Your task to perform on an android device: change the clock display to analog Image 0: 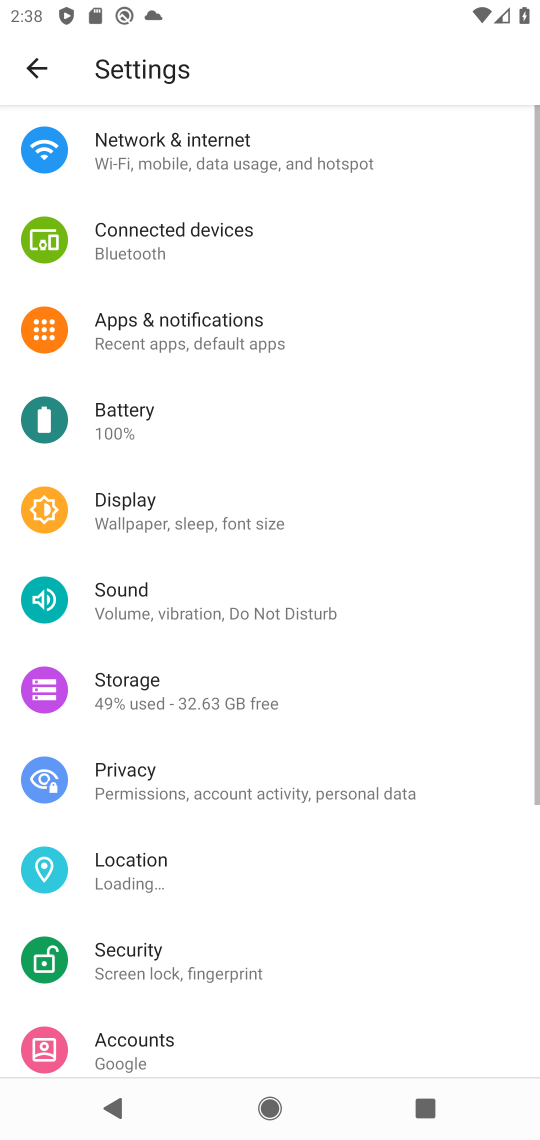
Step 0: press home button
Your task to perform on an android device: change the clock display to analog Image 1: 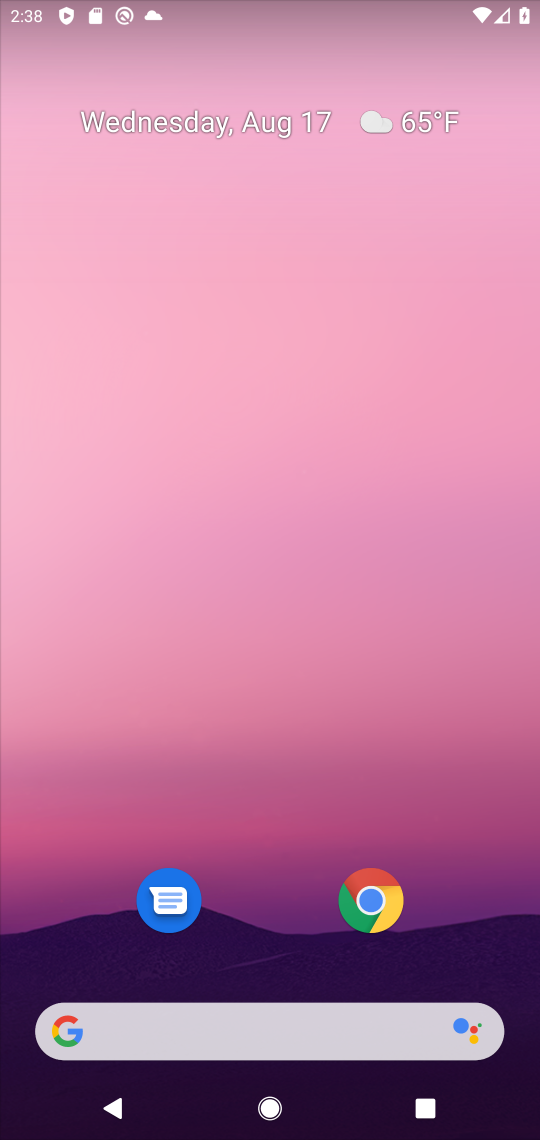
Step 1: drag from (250, 1013) to (379, 86)
Your task to perform on an android device: change the clock display to analog Image 2: 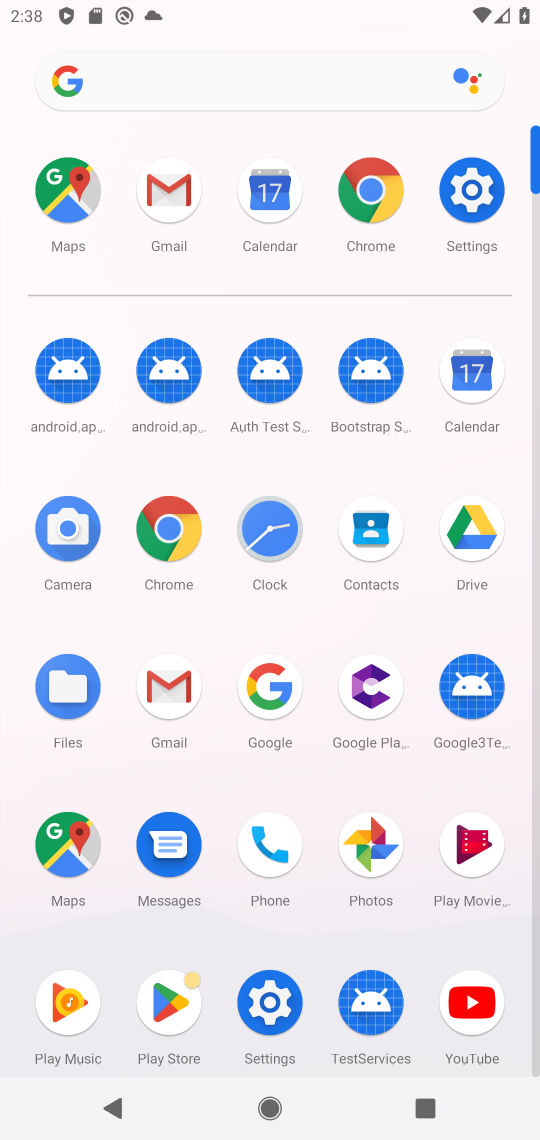
Step 2: click (259, 529)
Your task to perform on an android device: change the clock display to analog Image 3: 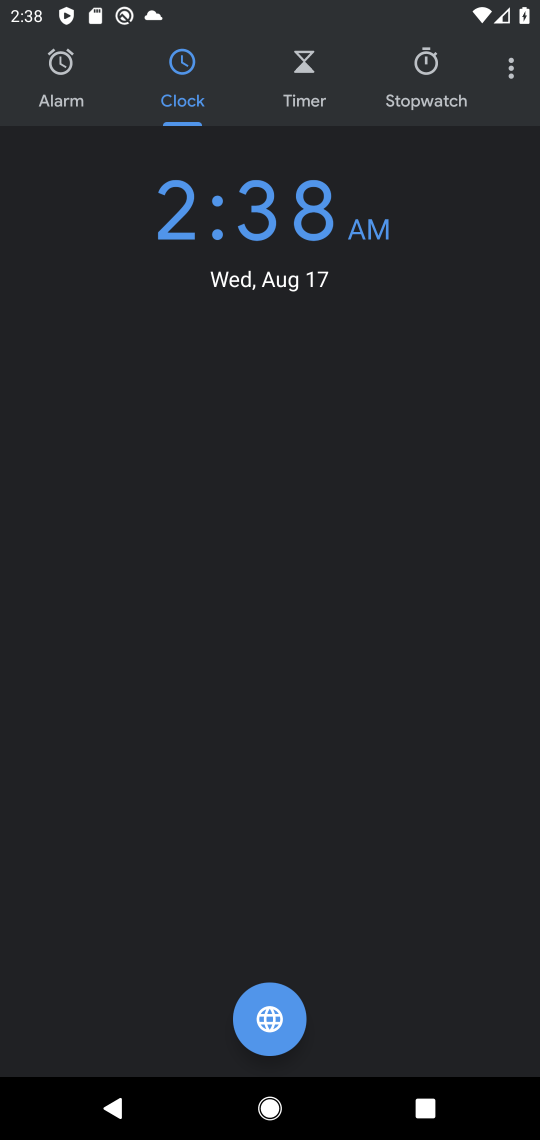
Step 3: click (511, 68)
Your task to perform on an android device: change the clock display to analog Image 4: 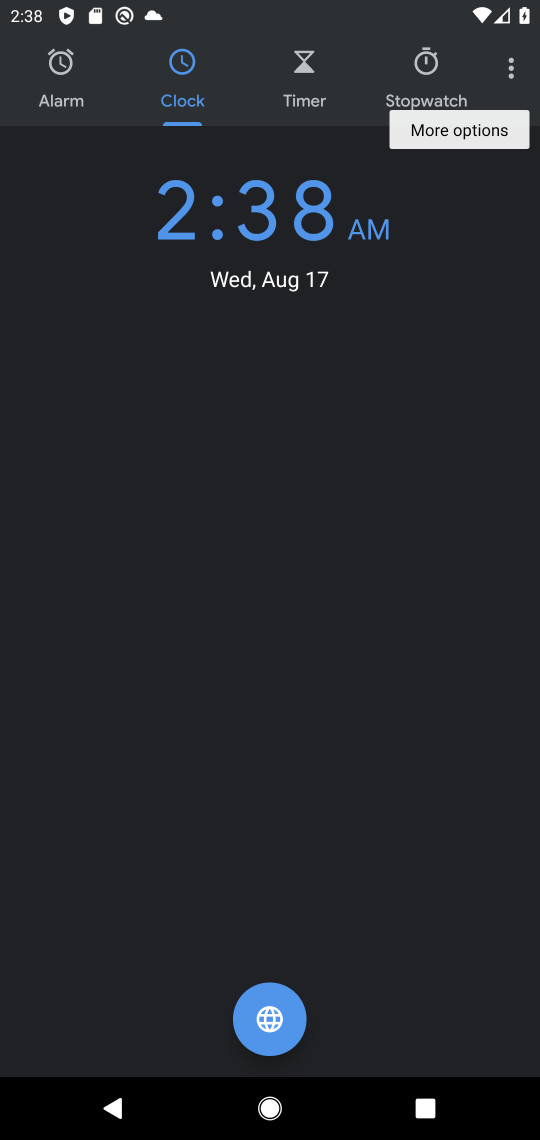
Step 4: click (498, 70)
Your task to perform on an android device: change the clock display to analog Image 5: 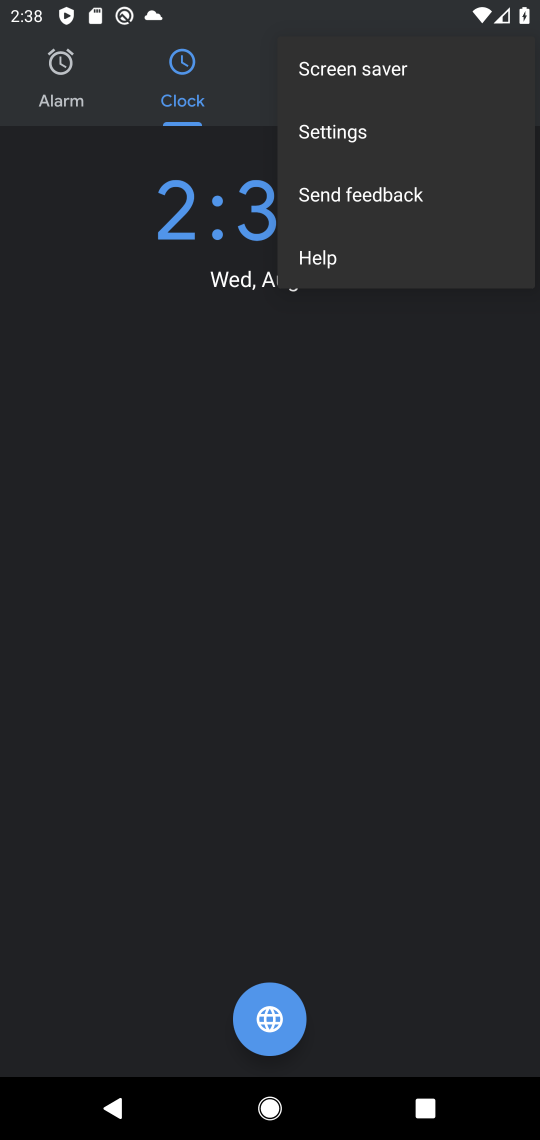
Step 5: click (374, 146)
Your task to perform on an android device: change the clock display to analog Image 6: 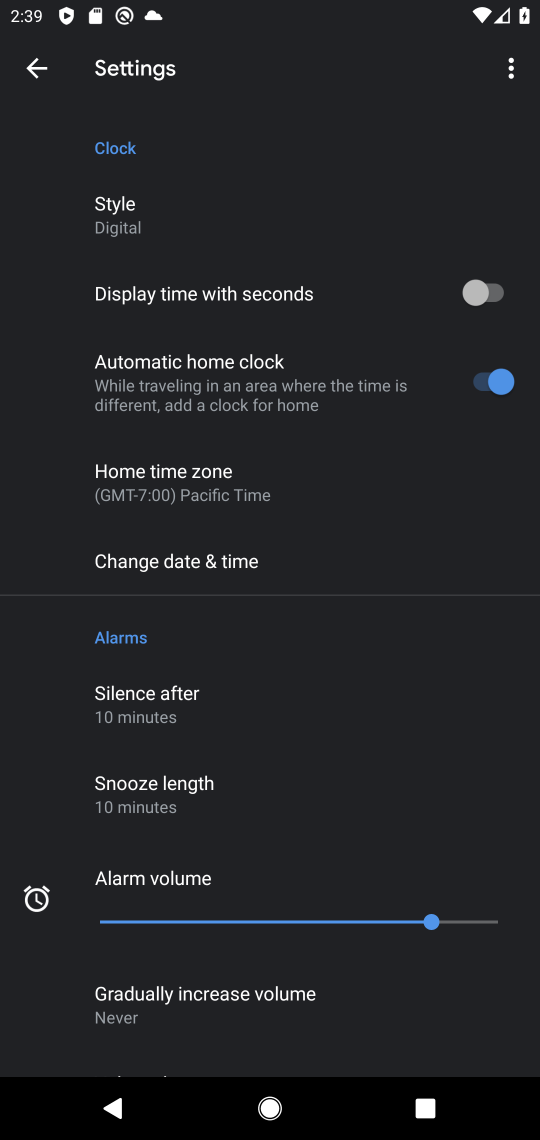
Step 6: click (139, 211)
Your task to perform on an android device: change the clock display to analog Image 7: 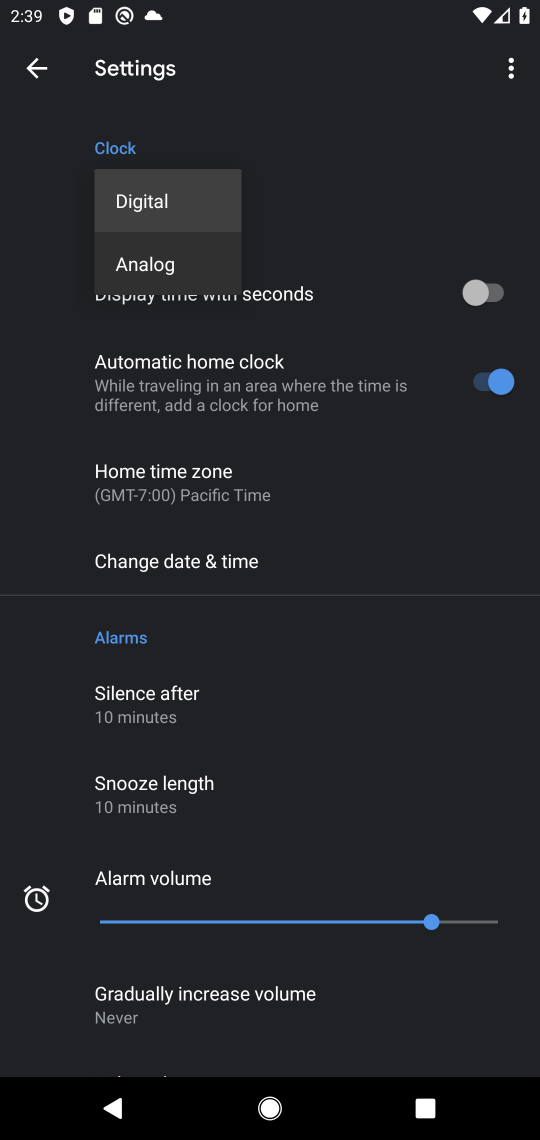
Step 7: click (160, 266)
Your task to perform on an android device: change the clock display to analog Image 8: 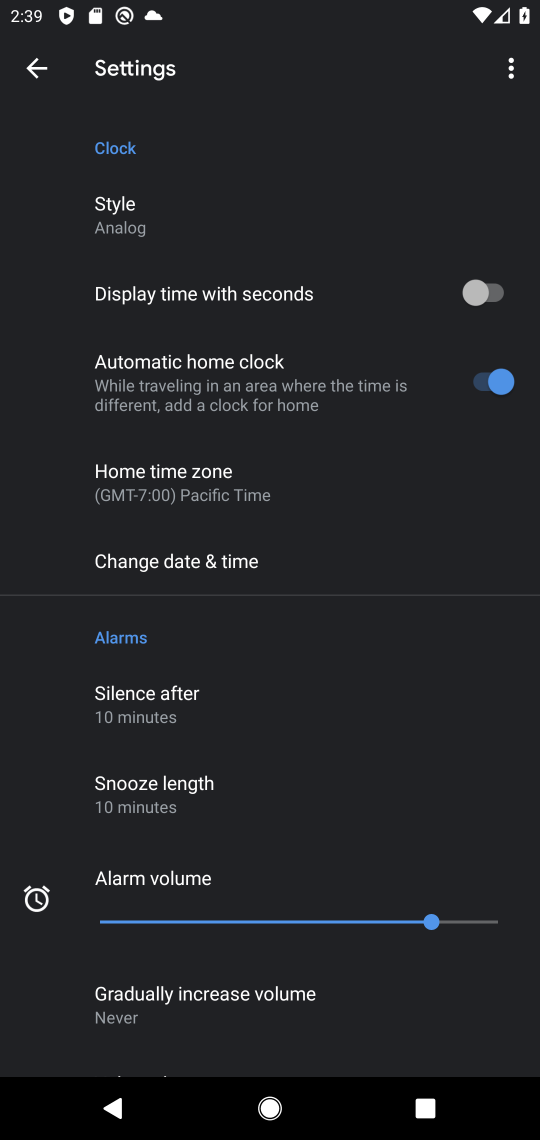
Step 8: task complete